Your task to perform on an android device: turn off picture-in-picture Image 0: 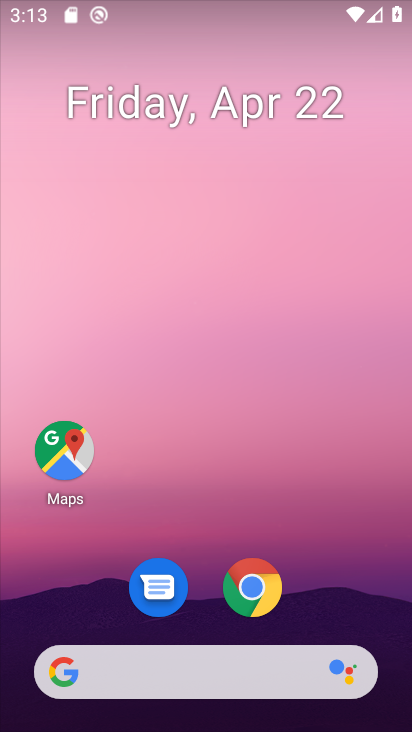
Step 0: click (253, 575)
Your task to perform on an android device: turn off picture-in-picture Image 1: 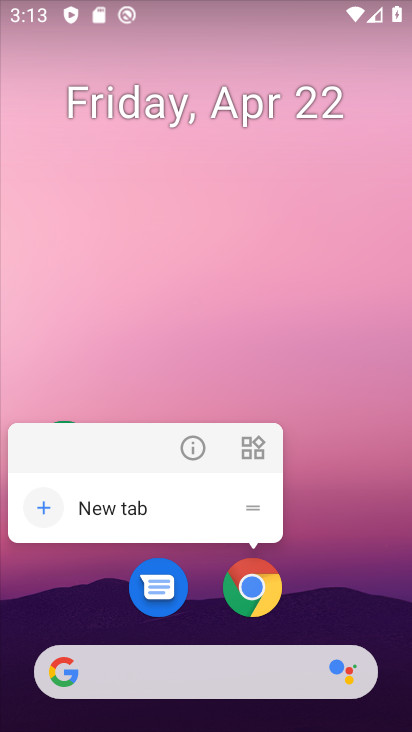
Step 1: click (192, 447)
Your task to perform on an android device: turn off picture-in-picture Image 2: 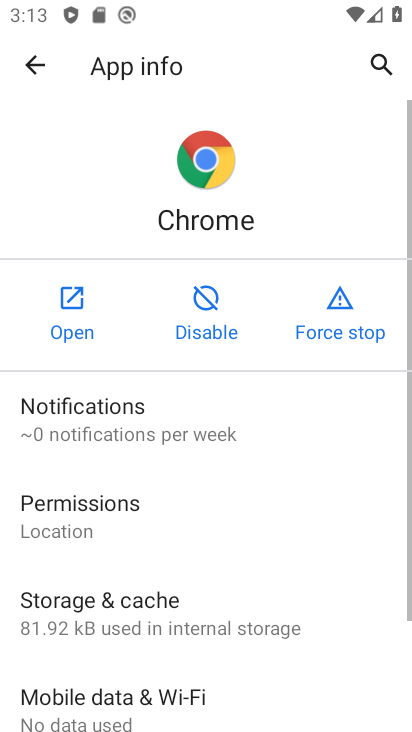
Step 2: drag from (232, 666) to (178, 10)
Your task to perform on an android device: turn off picture-in-picture Image 3: 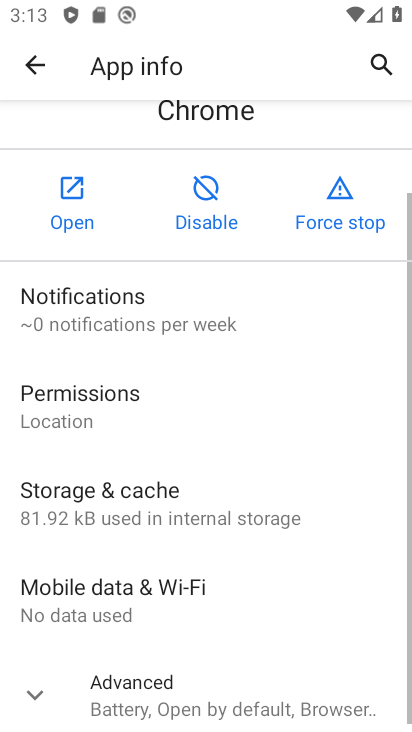
Step 3: click (22, 679)
Your task to perform on an android device: turn off picture-in-picture Image 4: 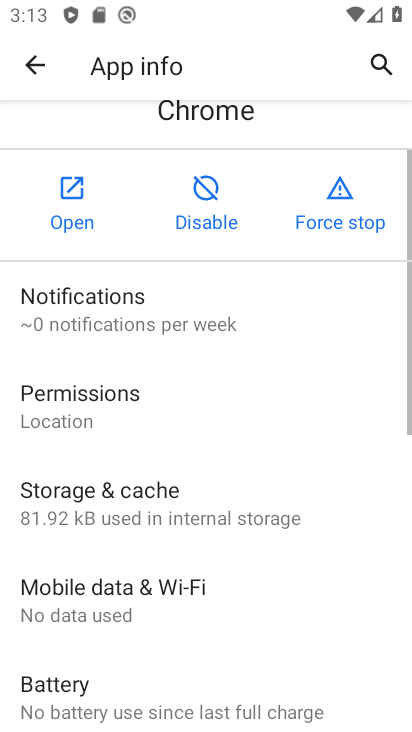
Step 4: drag from (203, 515) to (171, 16)
Your task to perform on an android device: turn off picture-in-picture Image 5: 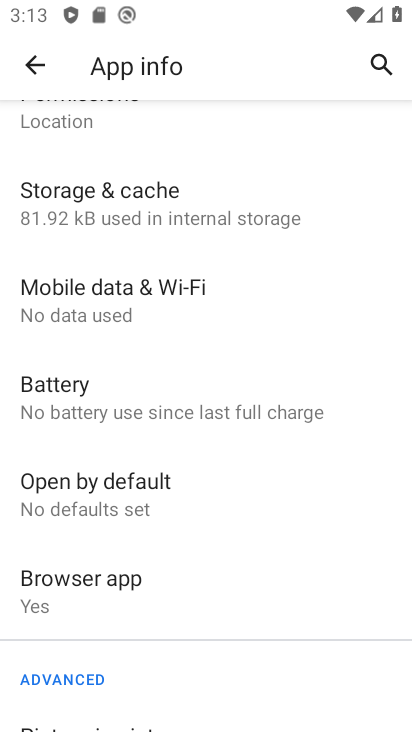
Step 5: drag from (146, 646) to (152, 93)
Your task to perform on an android device: turn off picture-in-picture Image 6: 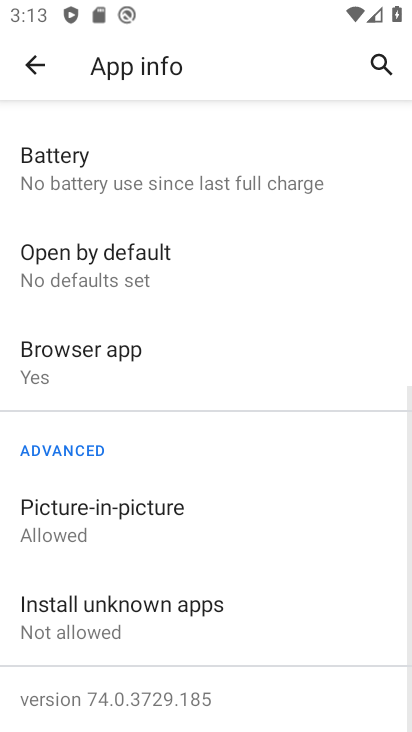
Step 6: click (99, 518)
Your task to perform on an android device: turn off picture-in-picture Image 7: 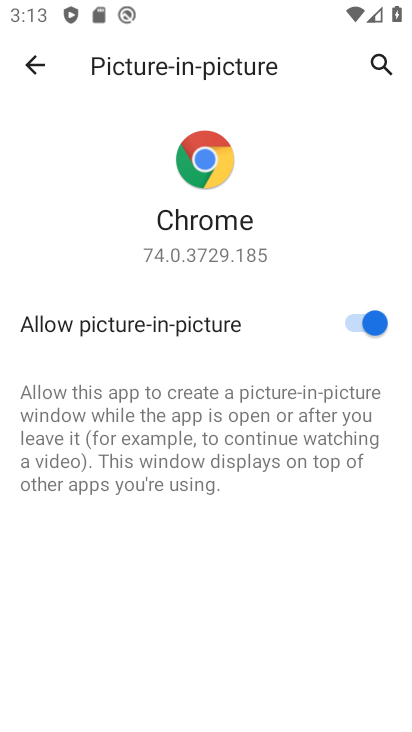
Step 7: click (376, 315)
Your task to perform on an android device: turn off picture-in-picture Image 8: 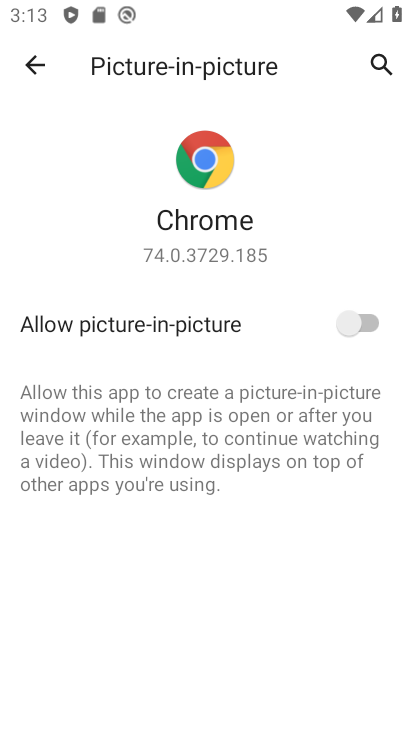
Step 8: task complete